Your task to perform on an android device: Open Youtube and go to "Your channel" Image 0: 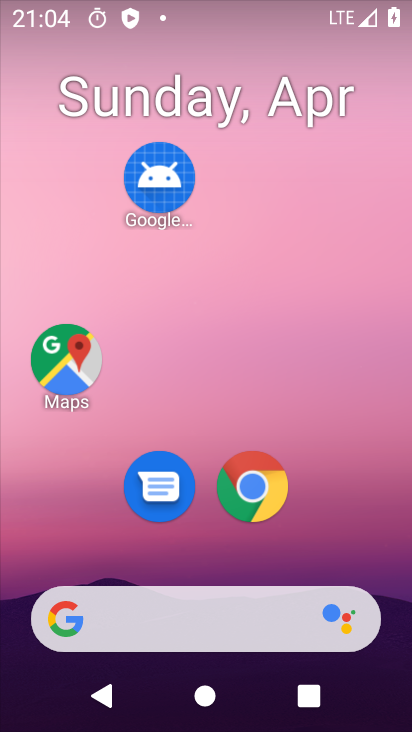
Step 0: drag from (354, 443) to (308, 175)
Your task to perform on an android device: Open Youtube and go to "Your channel" Image 1: 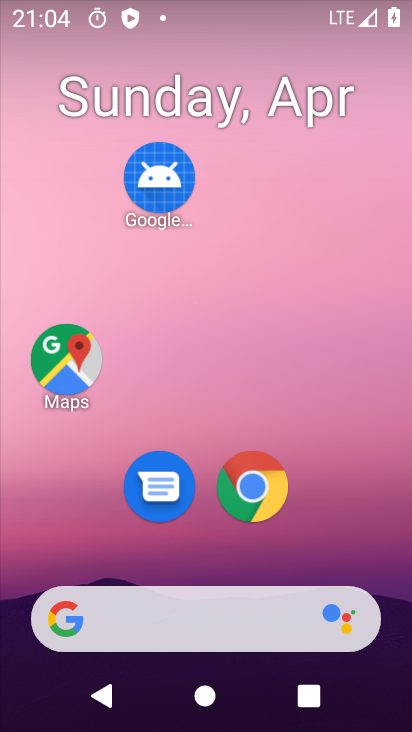
Step 1: drag from (334, 460) to (244, 111)
Your task to perform on an android device: Open Youtube and go to "Your channel" Image 2: 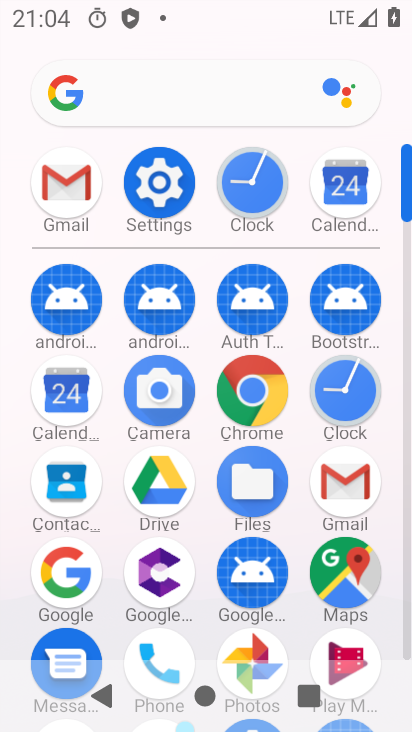
Step 2: drag from (297, 567) to (280, 213)
Your task to perform on an android device: Open Youtube and go to "Your channel" Image 3: 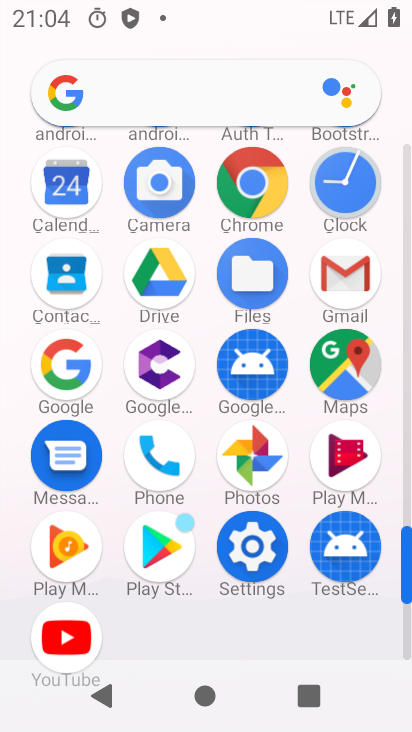
Step 3: click (77, 641)
Your task to perform on an android device: Open Youtube and go to "Your channel" Image 4: 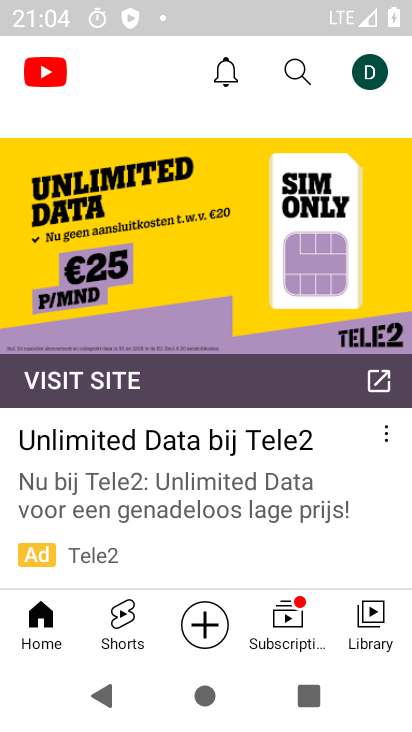
Step 4: click (367, 70)
Your task to perform on an android device: Open Youtube and go to "Your channel" Image 5: 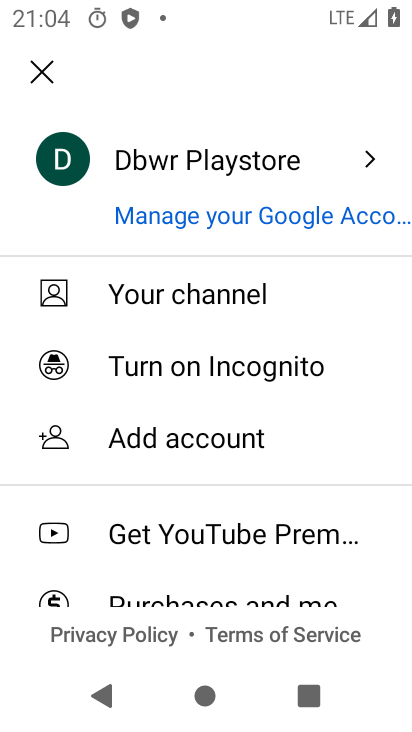
Step 5: click (137, 301)
Your task to perform on an android device: Open Youtube and go to "Your channel" Image 6: 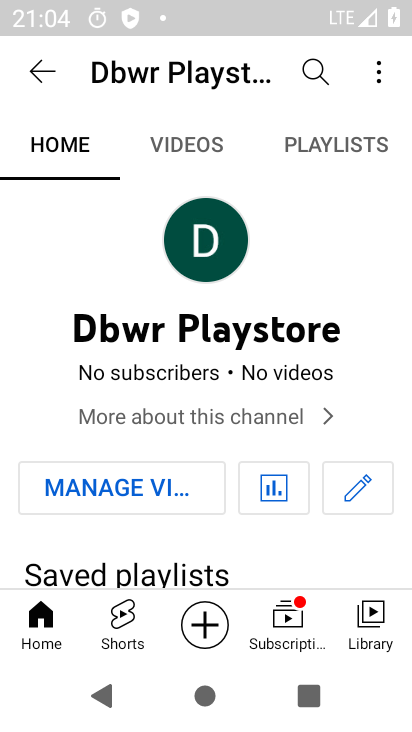
Step 6: task complete